Your task to perform on an android device: turn off location Image 0: 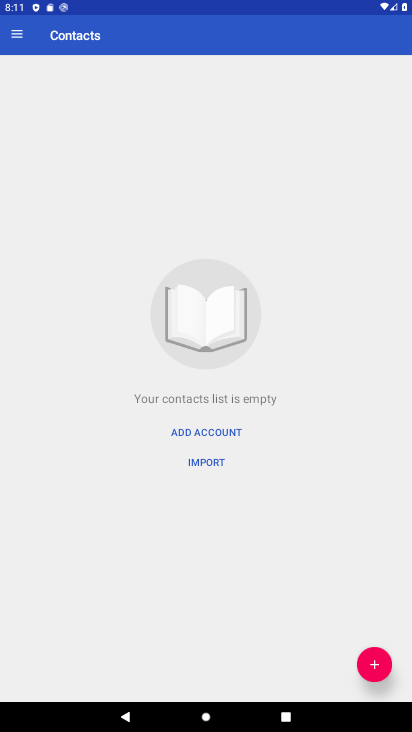
Step 0: press home button
Your task to perform on an android device: turn off location Image 1: 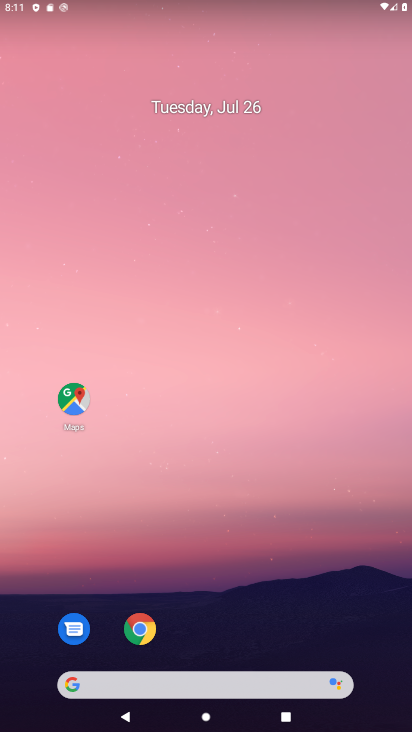
Step 1: drag from (212, 641) to (213, 82)
Your task to perform on an android device: turn off location Image 2: 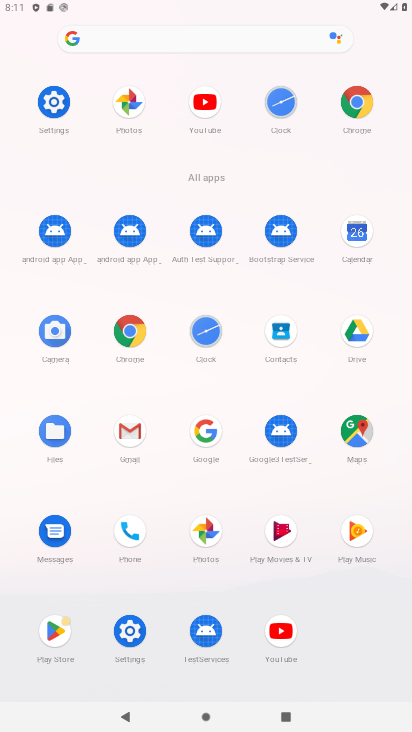
Step 2: click (50, 97)
Your task to perform on an android device: turn off location Image 3: 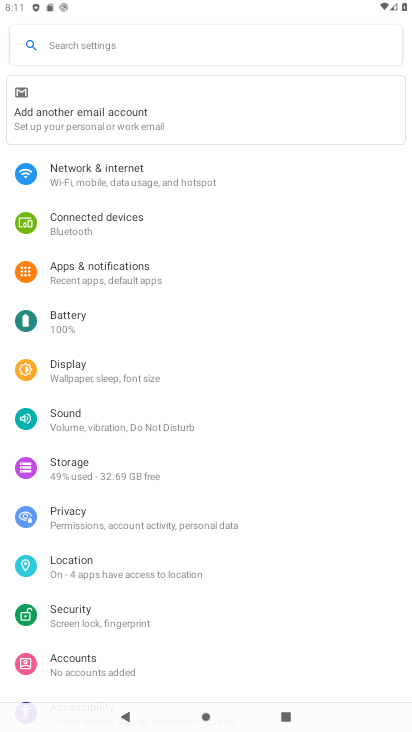
Step 3: click (75, 563)
Your task to perform on an android device: turn off location Image 4: 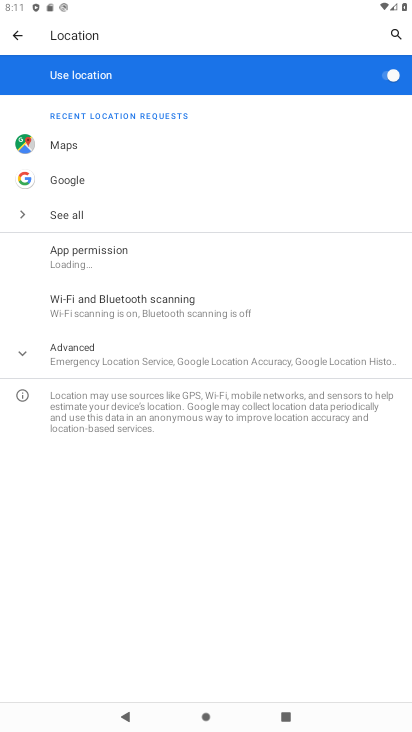
Step 4: click (383, 75)
Your task to perform on an android device: turn off location Image 5: 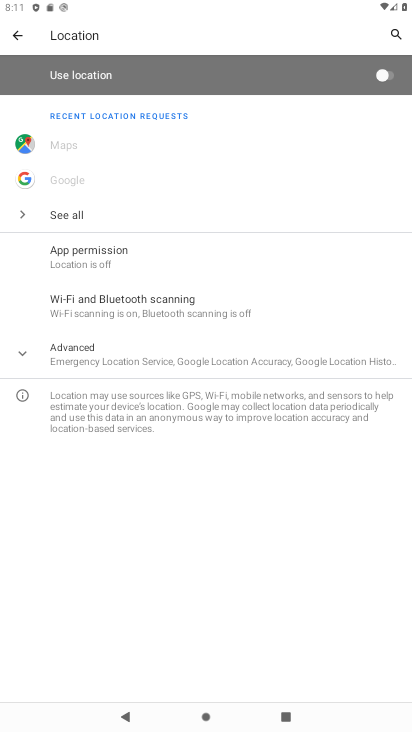
Step 5: task complete